Your task to perform on an android device: change text size in settings app Image 0: 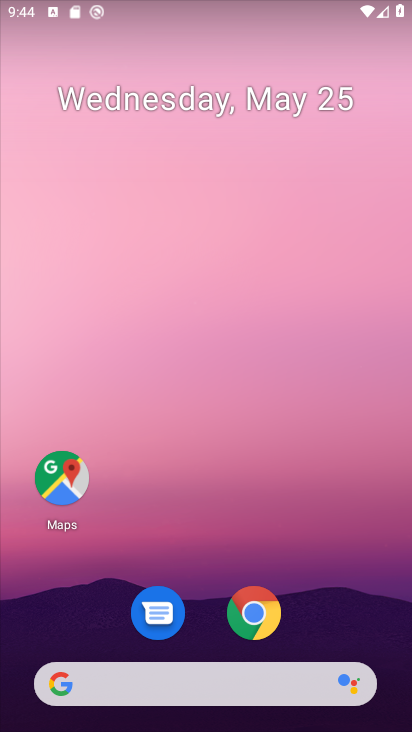
Step 0: drag from (339, 691) to (375, 43)
Your task to perform on an android device: change text size in settings app Image 1: 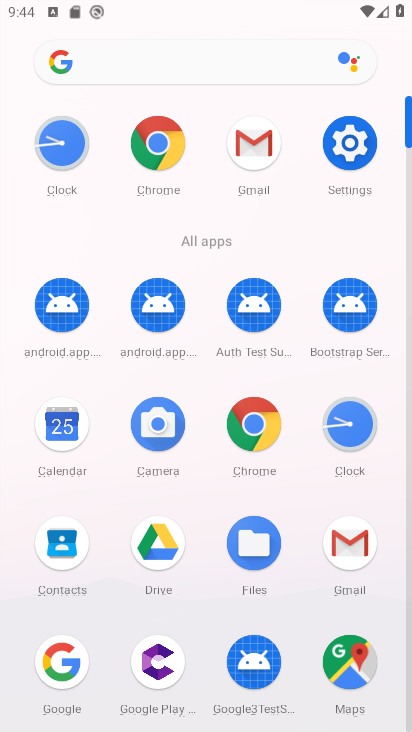
Step 1: click (330, 140)
Your task to perform on an android device: change text size in settings app Image 2: 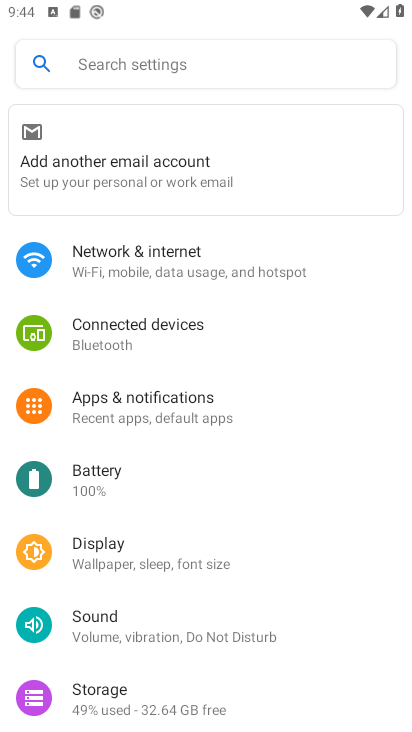
Step 2: drag from (299, 696) to (361, 148)
Your task to perform on an android device: change text size in settings app Image 3: 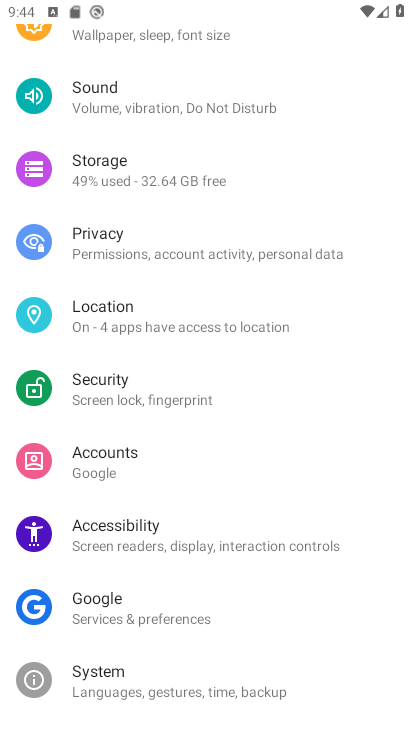
Step 3: drag from (222, 710) to (251, 336)
Your task to perform on an android device: change text size in settings app Image 4: 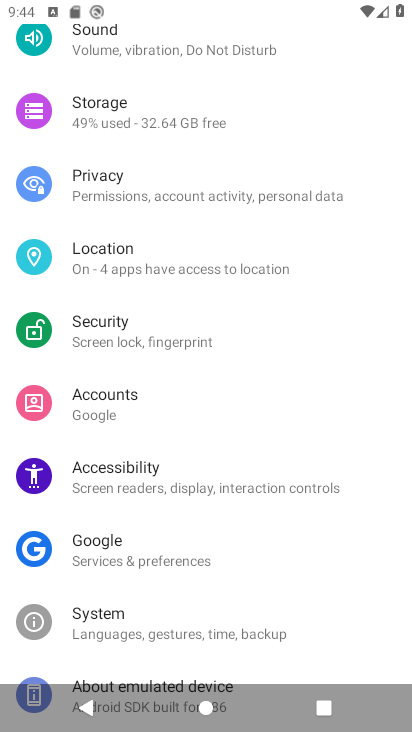
Step 4: click (229, 475)
Your task to perform on an android device: change text size in settings app Image 5: 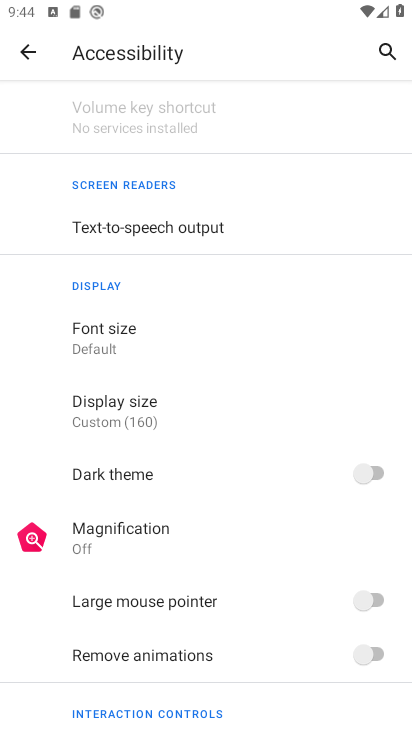
Step 5: click (127, 328)
Your task to perform on an android device: change text size in settings app Image 6: 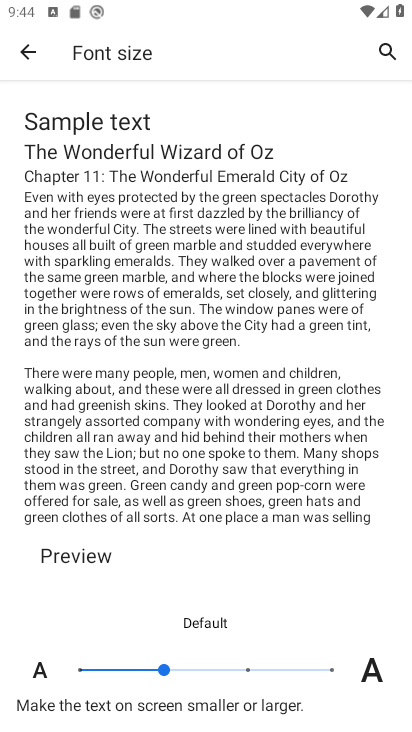
Step 6: click (83, 668)
Your task to perform on an android device: change text size in settings app Image 7: 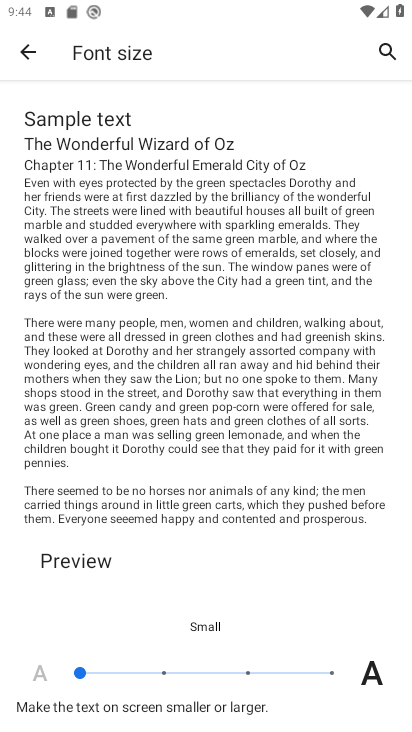
Step 7: task complete